Your task to perform on an android device: turn vacation reply on in the gmail app Image 0: 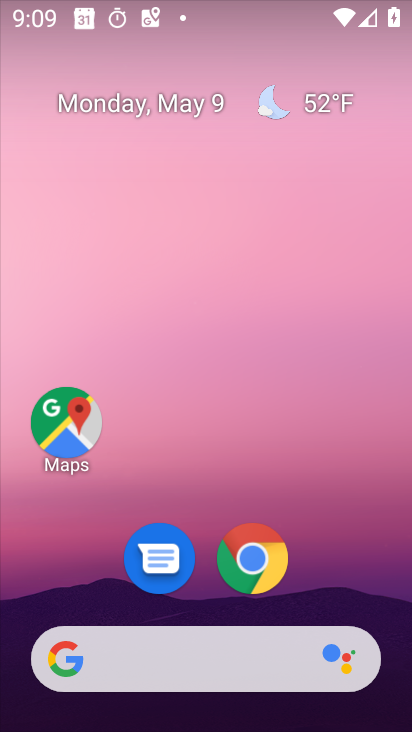
Step 0: drag from (188, 615) to (409, 53)
Your task to perform on an android device: turn vacation reply on in the gmail app Image 1: 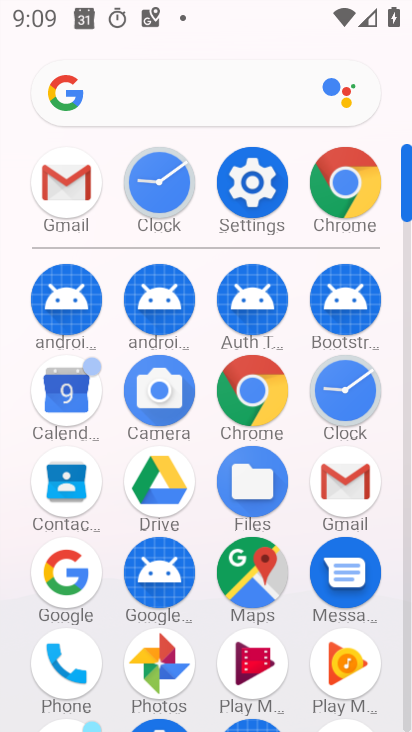
Step 1: click (67, 182)
Your task to perform on an android device: turn vacation reply on in the gmail app Image 2: 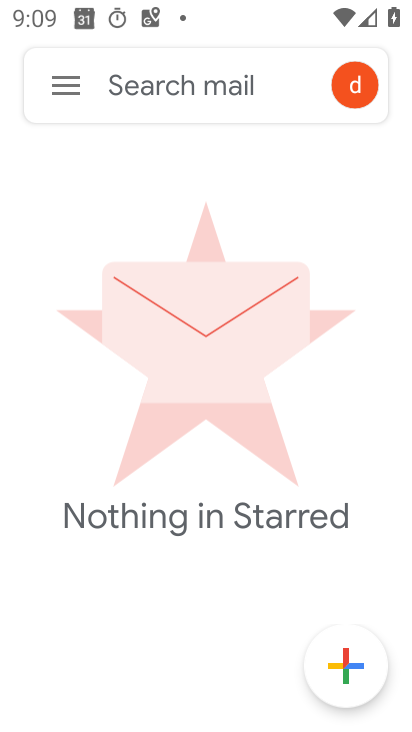
Step 2: click (66, 84)
Your task to perform on an android device: turn vacation reply on in the gmail app Image 3: 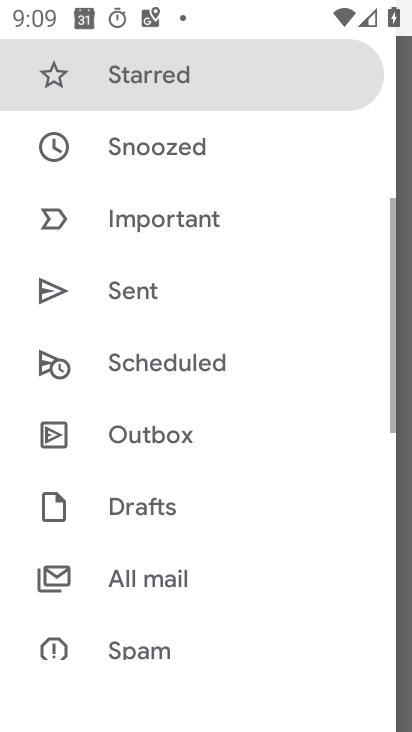
Step 3: drag from (148, 600) to (322, 21)
Your task to perform on an android device: turn vacation reply on in the gmail app Image 4: 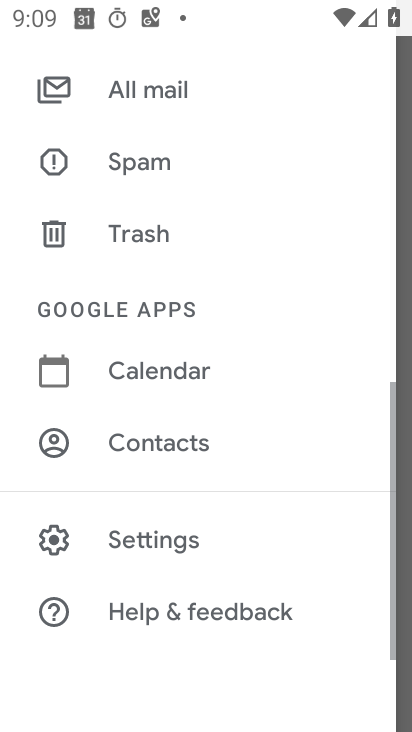
Step 4: click (178, 540)
Your task to perform on an android device: turn vacation reply on in the gmail app Image 5: 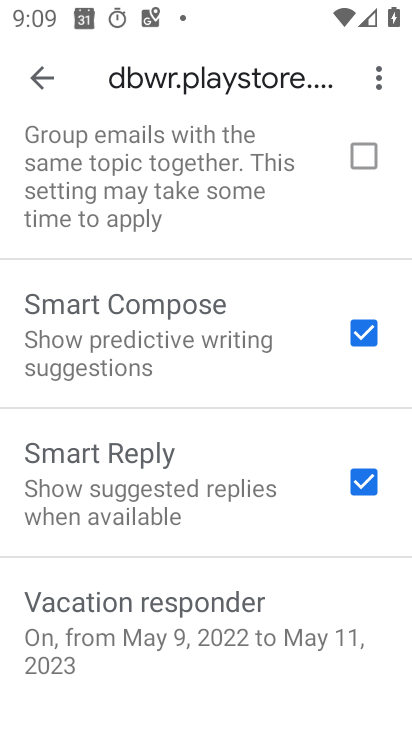
Step 5: click (151, 619)
Your task to perform on an android device: turn vacation reply on in the gmail app Image 6: 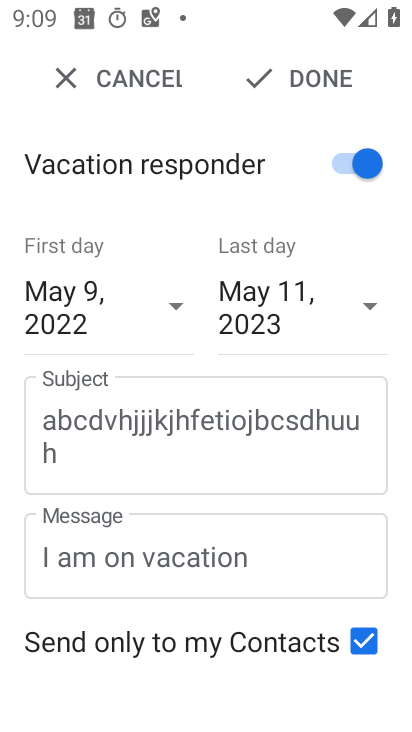
Step 6: task complete